Your task to perform on an android device: Is it going to rain today? Image 0: 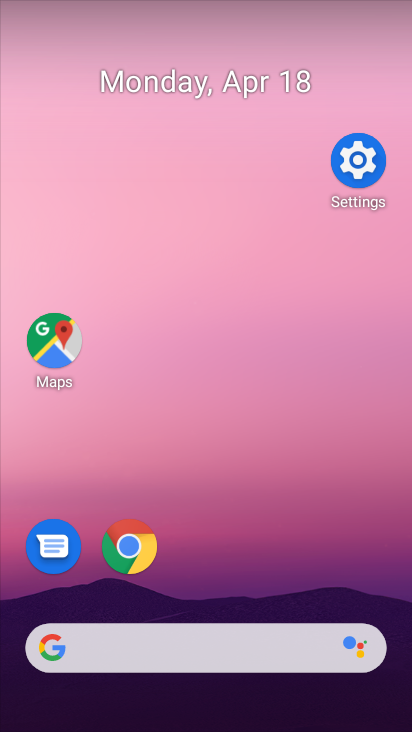
Step 0: drag from (255, 698) to (105, 177)
Your task to perform on an android device: Is it going to rain today? Image 1: 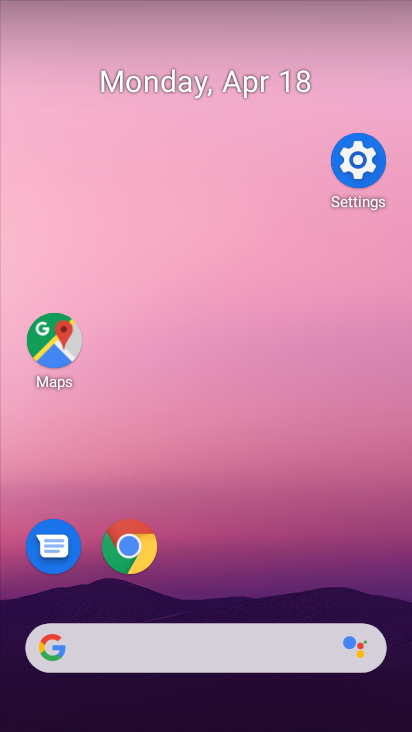
Step 1: drag from (272, 562) to (172, 138)
Your task to perform on an android device: Is it going to rain today? Image 2: 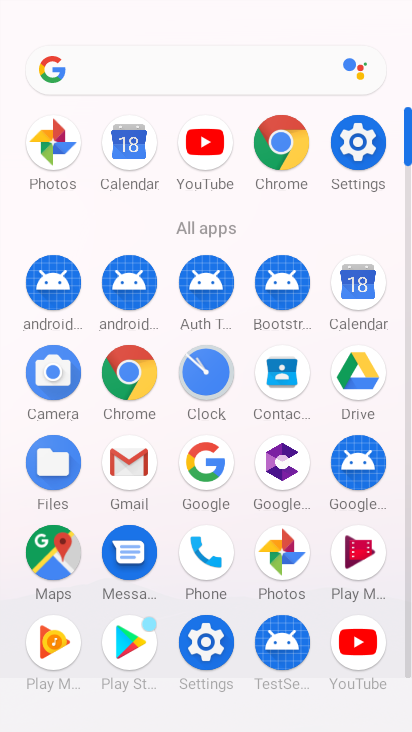
Step 2: press home button
Your task to perform on an android device: Is it going to rain today? Image 3: 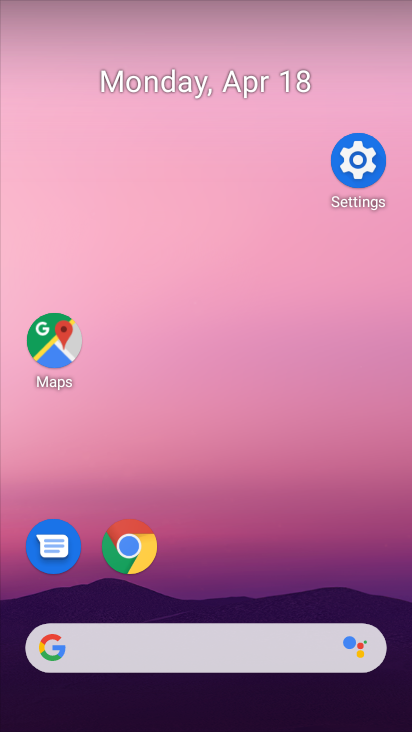
Step 3: drag from (17, 238) to (389, 207)
Your task to perform on an android device: Is it going to rain today? Image 4: 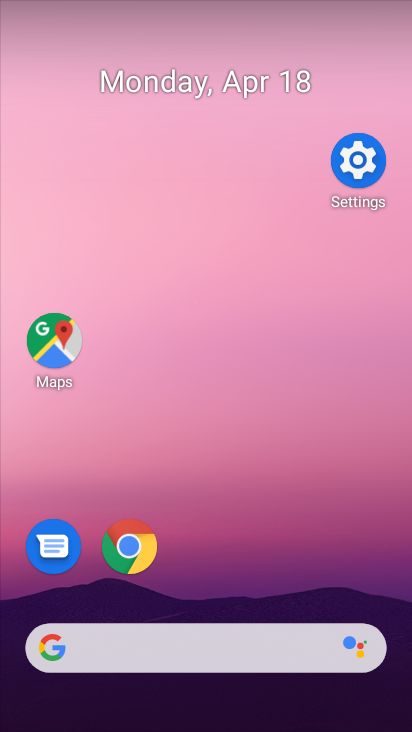
Step 4: drag from (383, 470) to (405, 387)
Your task to perform on an android device: Is it going to rain today? Image 5: 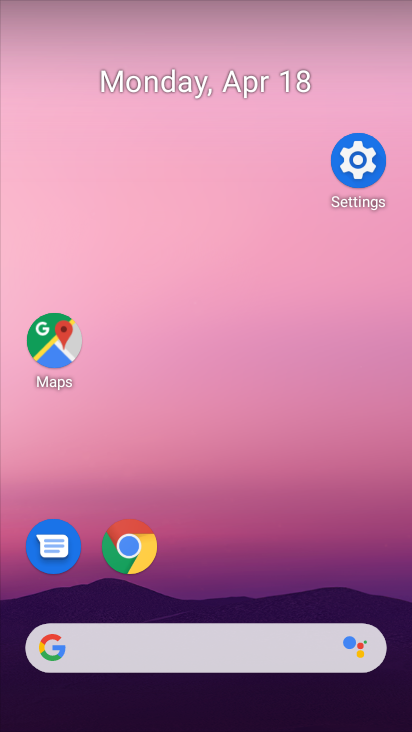
Step 5: drag from (350, 453) to (374, 333)
Your task to perform on an android device: Is it going to rain today? Image 6: 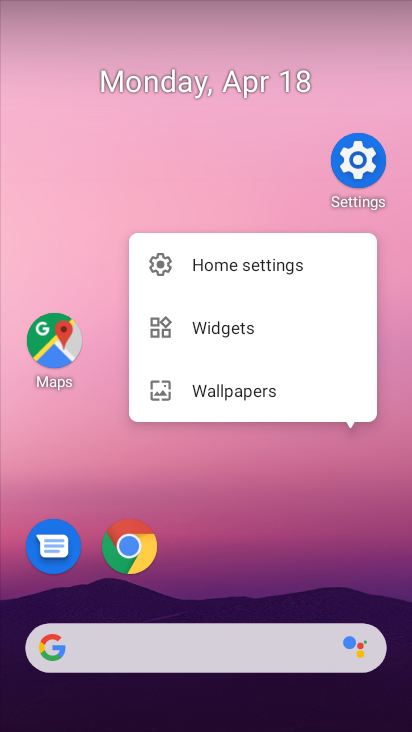
Step 6: click (238, 514)
Your task to perform on an android device: Is it going to rain today? Image 7: 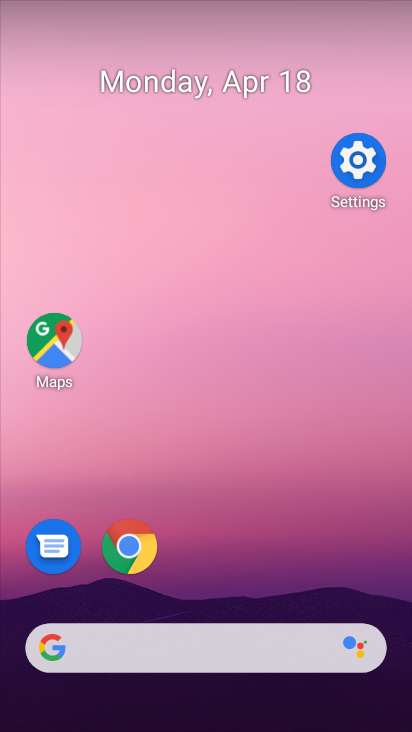
Step 7: click (42, 234)
Your task to perform on an android device: Is it going to rain today? Image 8: 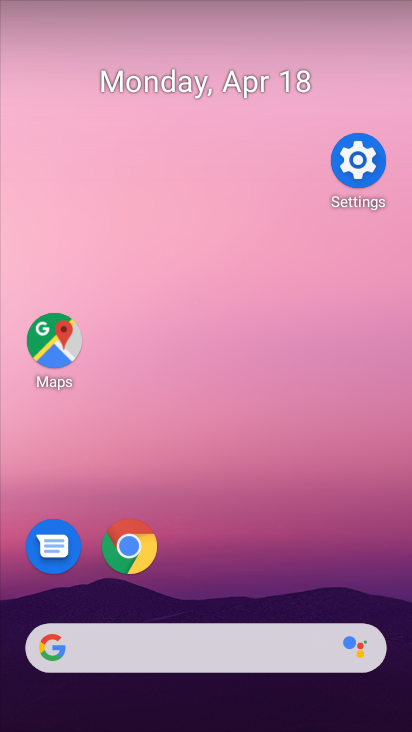
Step 8: drag from (402, 333) to (358, 360)
Your task to perform on an android device: Is it going to rain today? Image 9: 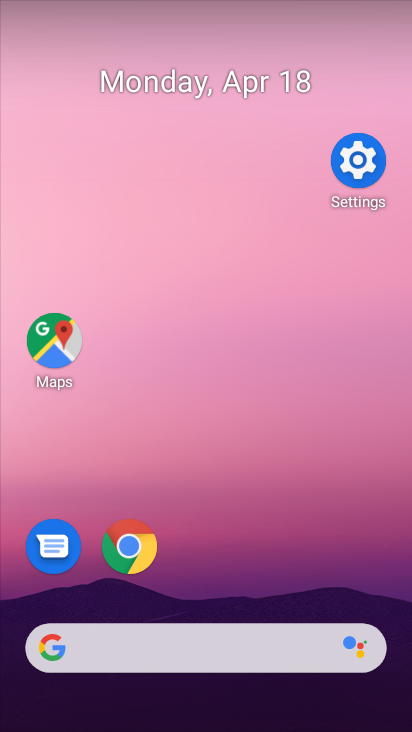
Step 9: drag from (58, 285) to (352, 377)
Your task to perform on an android device: Is it going to rain today? Image 10: 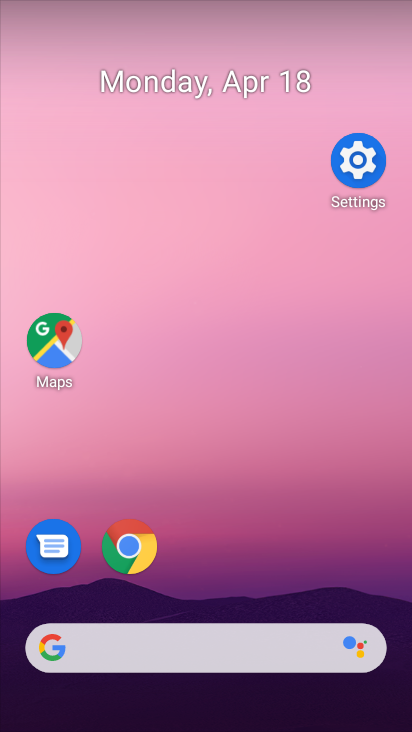
Step 10: drag from (31, 261) to (18, 181)
Your task to perform on an android device: Is it going to rain today? Image 11: 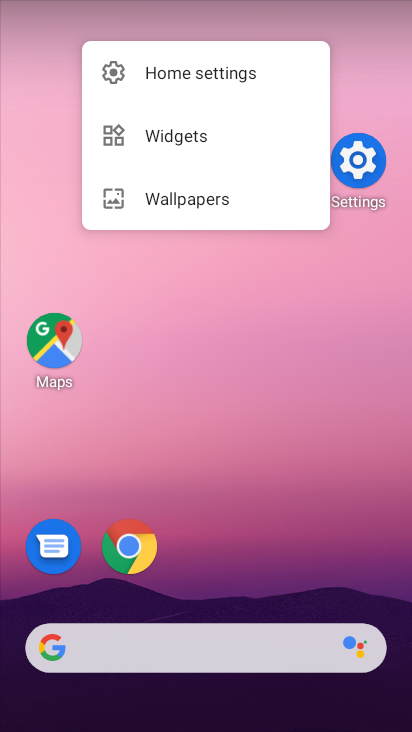
Step 11: drag from (21, 180) to (253, 291)
Your task to perform on an android device: Is it going to rain today? Image 12: 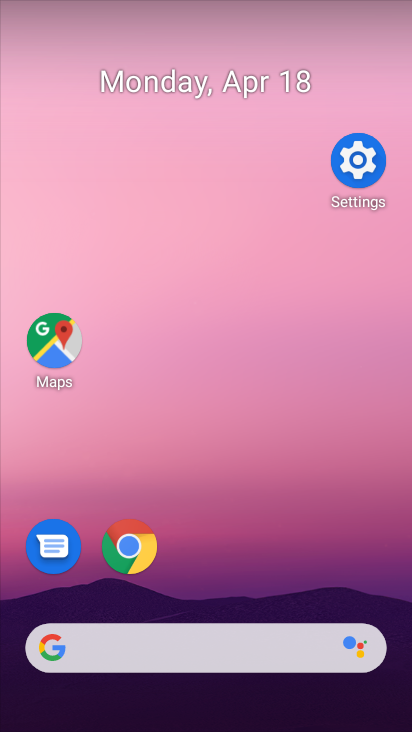
Step 12: drag from (15, 263) to (320, 322)
Your task to perform on an android device: Is it going to rain today? Image 13: 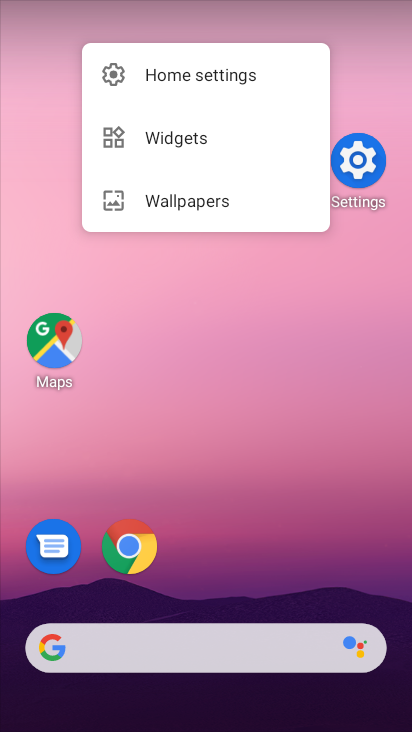
Step 13: drag from (326, 331) to (405, 421)
Your task to perform on an android device: Is it going to rain today? Image 14: 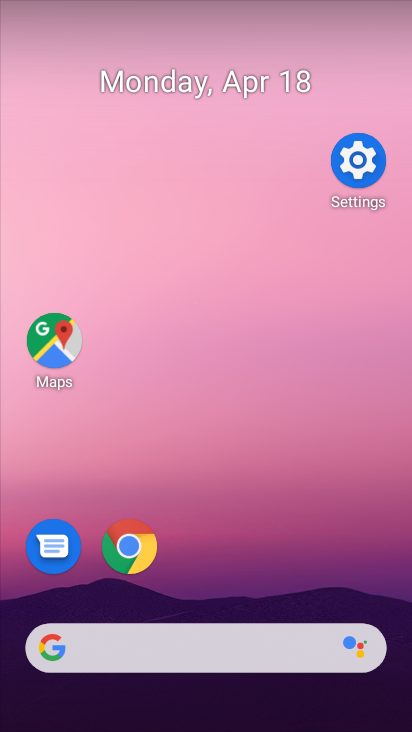
Step 14: drag from (321, 358) to (337, 475)
Your task to perform on an android device: Is it going to rain today? Image 15: 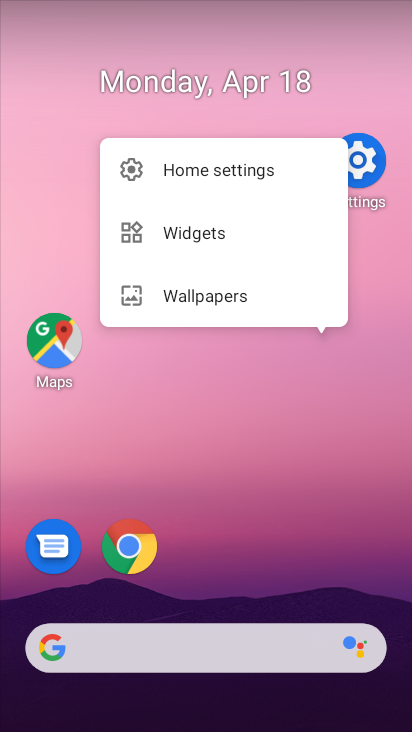
Step 15: click (383, 421)
Your task to perform on an android device: Is it going to rain today? Image 16: 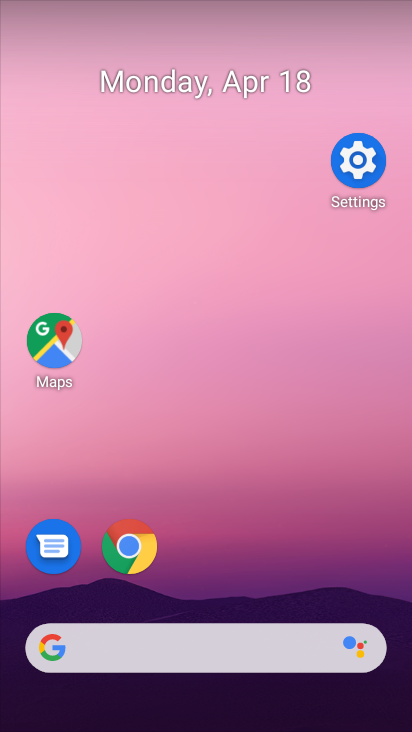
Step 16: drag from (339, 424) to (403, 331)
Your task to perform on an android device: Is it going to rain today? Image 17: 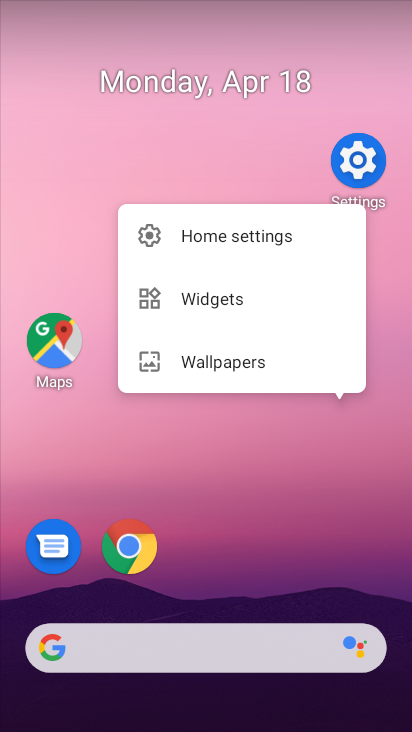
Step 17: drag from (26, 255) to (409, 372)
Your task to perform on an android device: Is it going to rain today? Image 18: 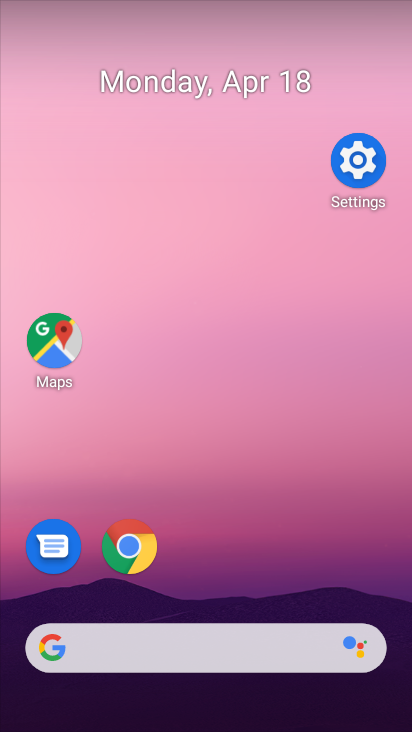
Step 18: drag from (337, 281) to (394, 283)
Your task to perform on an android device: Is it going to rain today? Image 19: 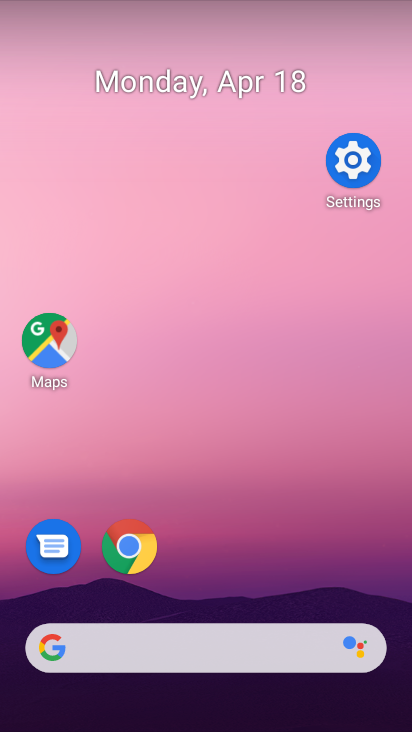
Step 19: drag from (140, 272) to (373, 411)
Your task to perform on an android device: Is it going to rain today? Image 20: 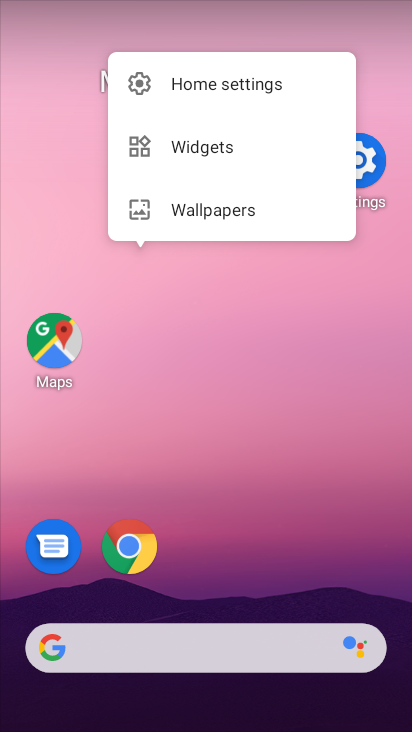
Step 20: click (10, 317)
Your task to perform on an android device: Is it going to rain today? Image 21: 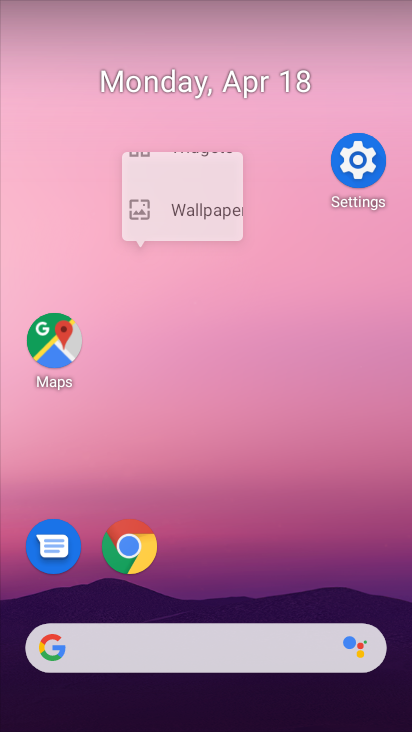
Step 21: drag from (51, 312) to (321, 328)
Your task to perform on an android device: Is it going to rain today? Image 22: 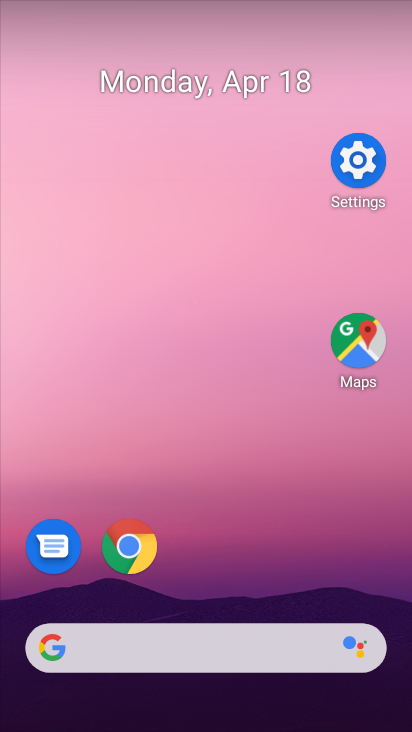
Step 22: drag from (252, 419) to (149, 367)
Your task to perform on an android device: Is it going to rain today? Image 23: 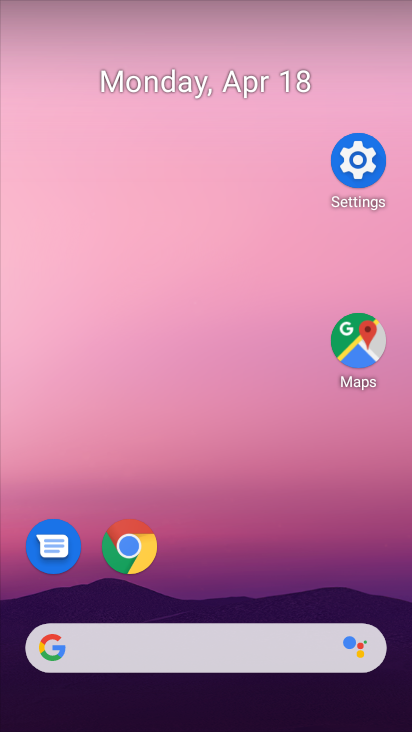
Step 23: click (135, 398)
Your task to perform on an android device: Is it going to rain today? Image 24: 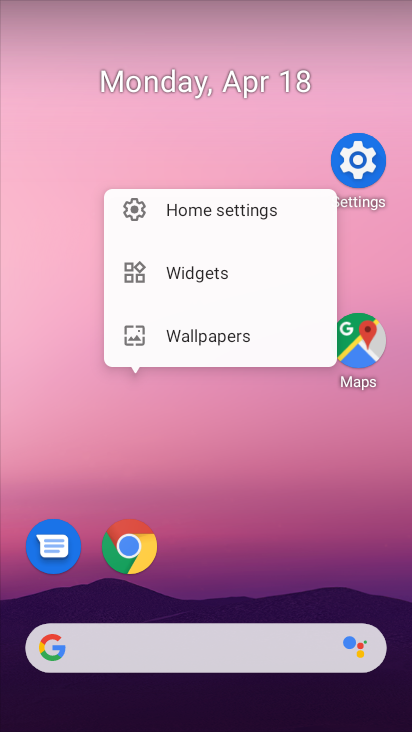
Step 24: drag from (317, 405) to (354, 299)
Your task to perform on an android device: Is it going to rain today? Image 25: 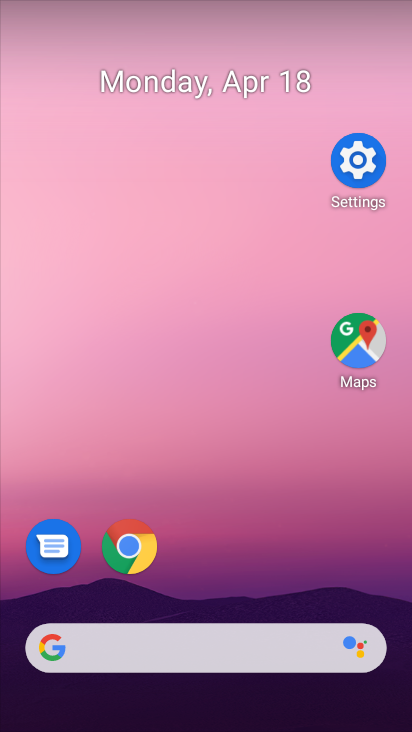
Step 25: drag from (104, 270) to (230, 285)
Your task to perform on an android device: Is it going to rain today? Image 26: 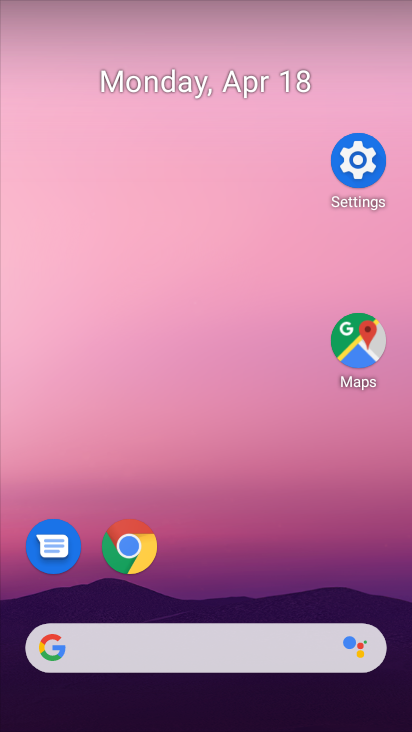
Step 26: drag from (395, 411) to (313, 455)
Your task to perform on an android device: Is it going to rain today? Image 27: 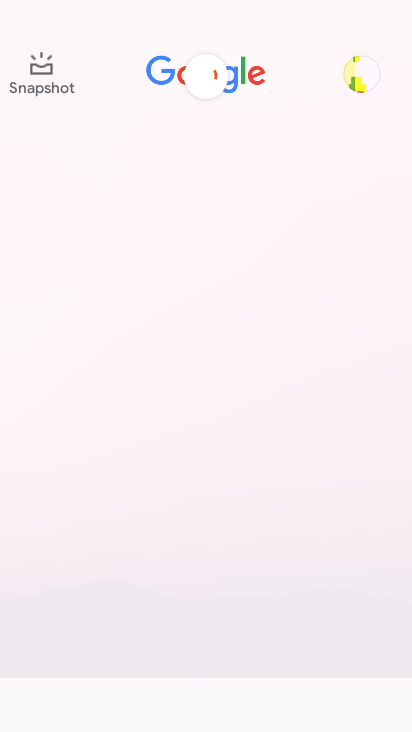
Step 27: drag from (236, 493) to (296, 520)
Your task to perform on an android device: Is it going to rain today? Image 28: 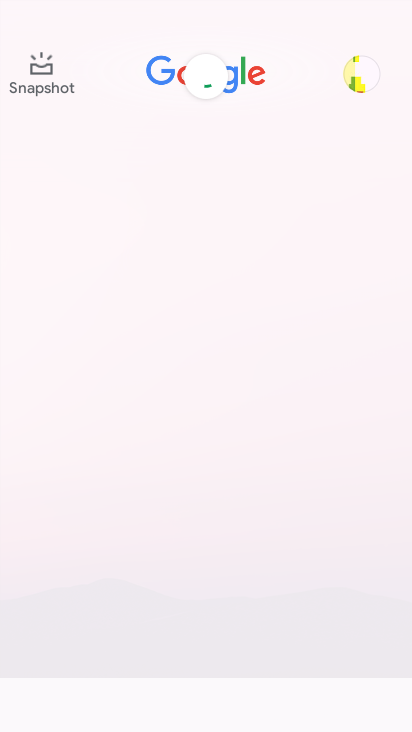
Step 28: drag from (145, 406) to (399, 442)
Your task to perform on an android device: Is it going to rain today? Image 29: 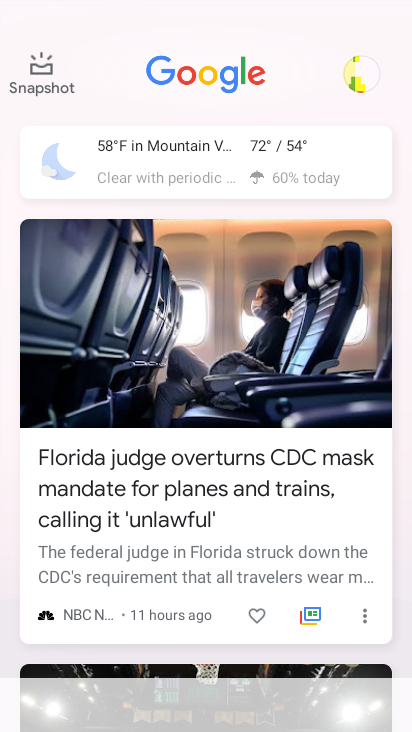
Step 29: click (261, 154)
Your task to perform on an android device: Is it going to rain today? Image 30: 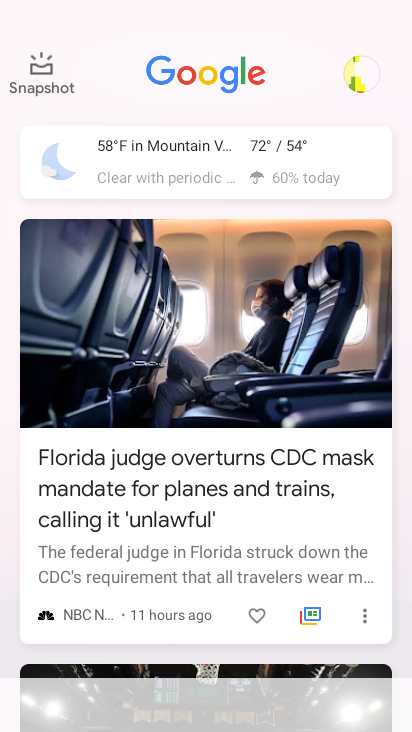
Step 30: click (261, 160)
Your task to perform on an android device: Is it going to rain today? Image 31: 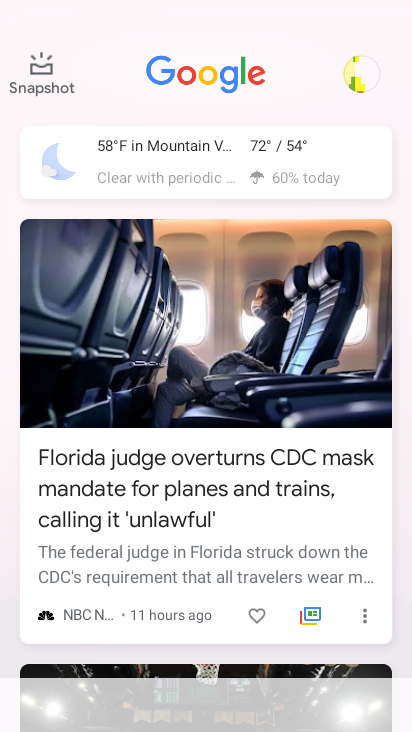
Step 31: click (159, 178)
Your task to perform on an android device: Is it going to rain today? Image 32: 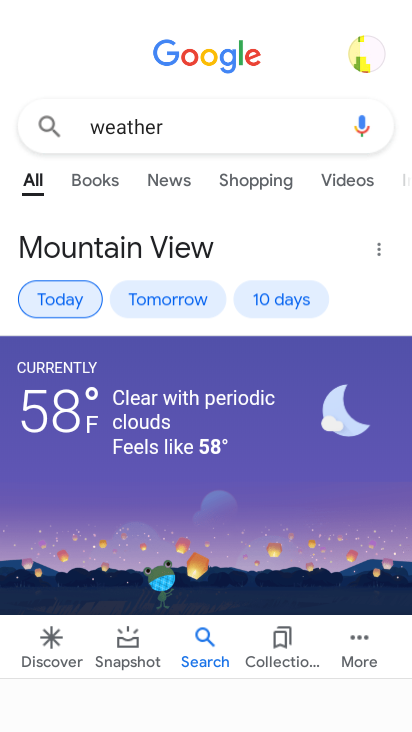
Step 32: click (62, 309)
Your task to perform on an android device: Is it going to rain today? Image 33: 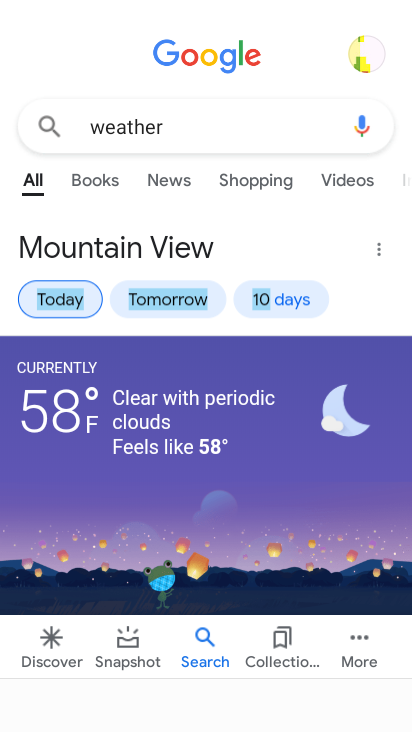
Step 33: task complete